Your task to perform on an android device: Open the calendar and show me this week's events? Image 0: 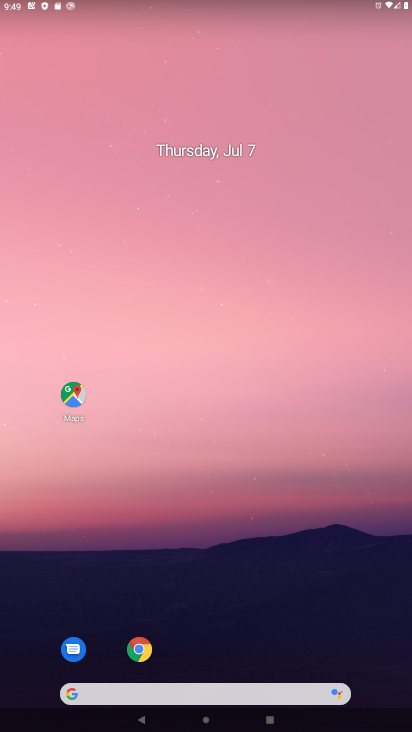
Step 0: drag from (227, 717) to (230, 185)
Your task to perform on an android device: Open the calendar and show me this week's events? Image 1: 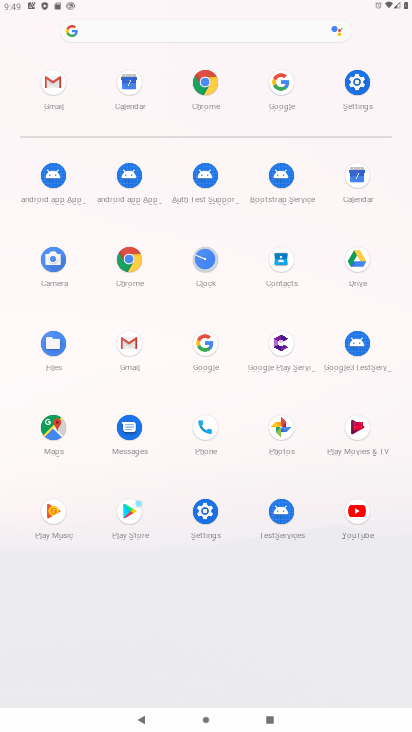
Step 1: click (358, 175)
Your task to perform on an android device: Open the calendar and show me this week's events? Image 2: 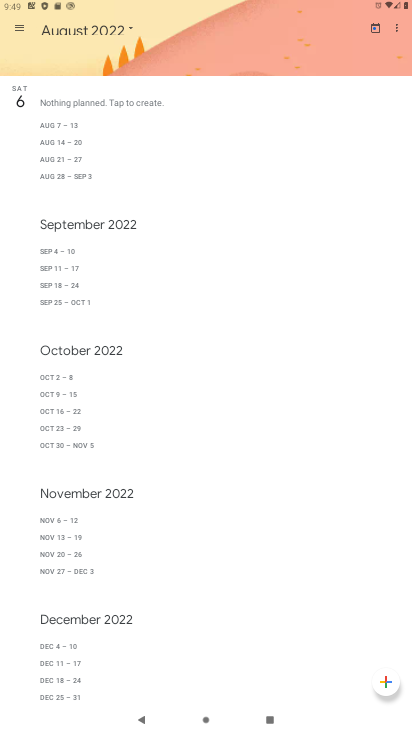
Step 2: click (127, 30)
Your task to perform on an android device: Open the calendar and show me this week's events? Image 3: 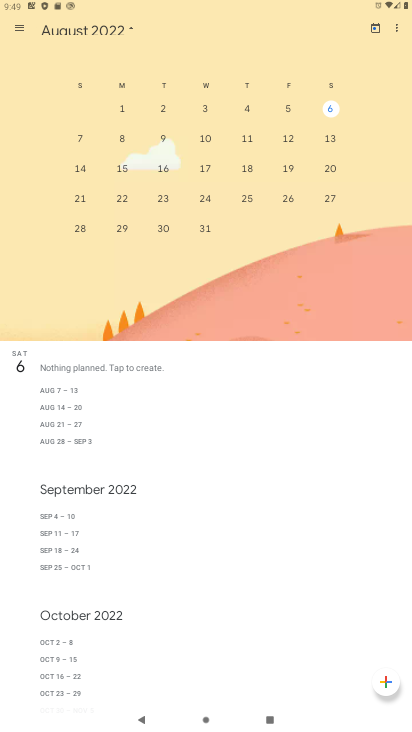
Step 3: click (22, 29)
Your task to perform on an android device: Open the calendar and show me this week's events? Image 4: 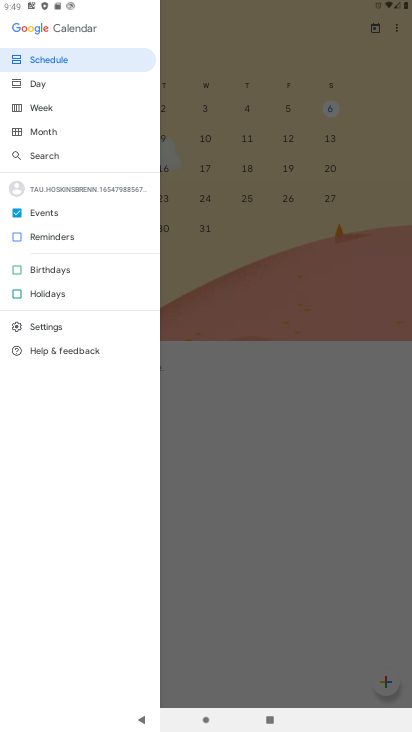
Step 4: click (46, 110)
Your task to perform on an android device: Open the calendar and show me this week's events? Image 5: 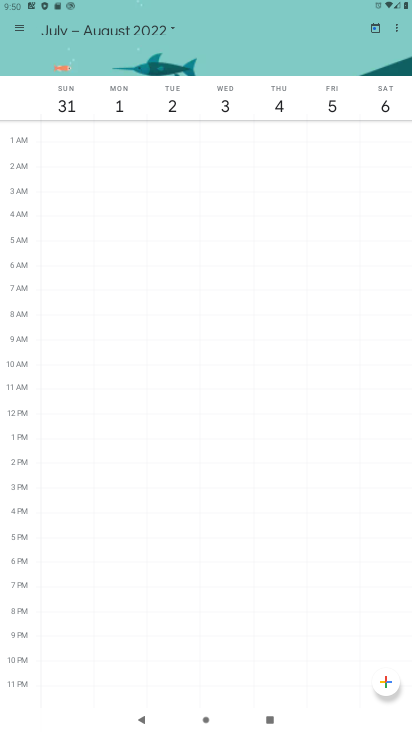
Step 5: task complete